Your task to perform on an android device: open a new tab in the chrome app Image 0: 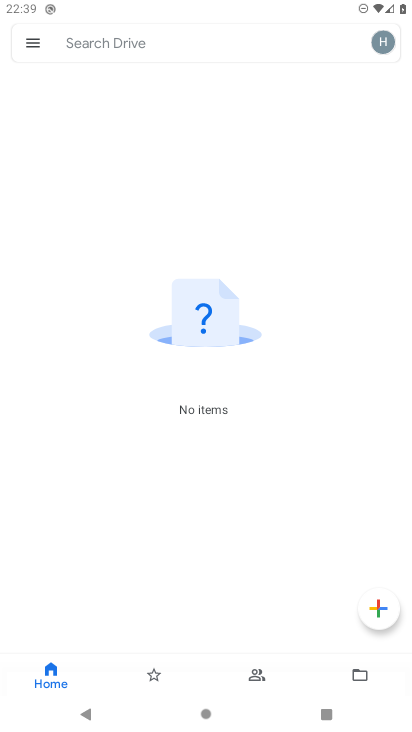
Step 0: press home button
Your task to perform on an android device: open a new tab in the chrome app Image 1: 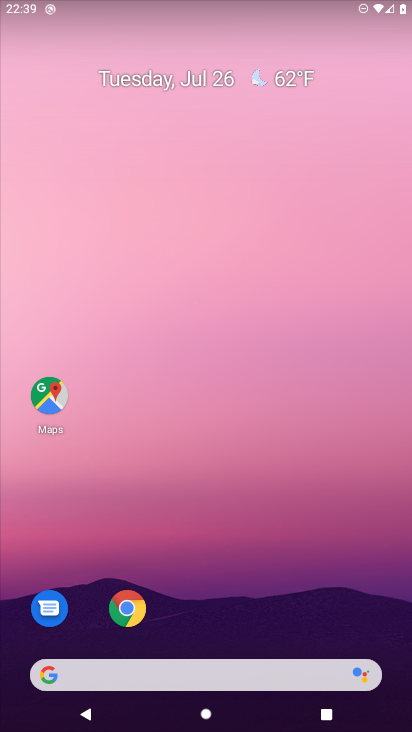
Step 1: click (123, 598)
Your task to perform on an android device: open a new tab in the chrome app Image 2: 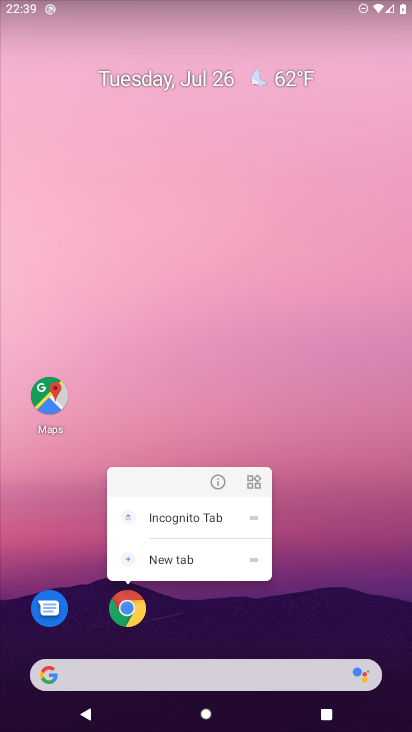
Step 2: click (159, 554)
Your task to perform on an android device: open a new tab in the chrome app Image 3: 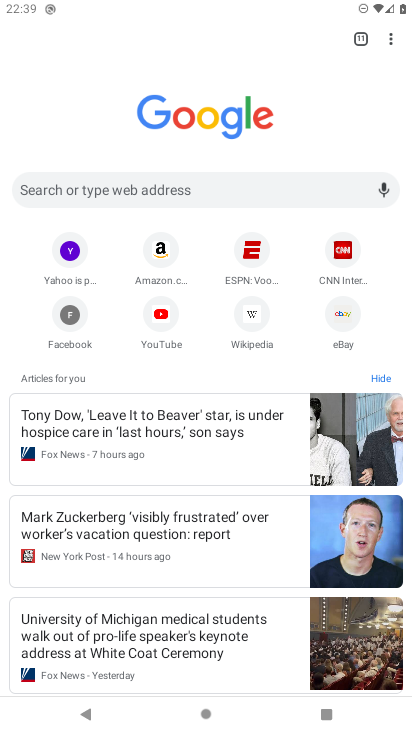
Step 3: task complete